Your task to perform on an android device: Go to ESPN.com Image 0: 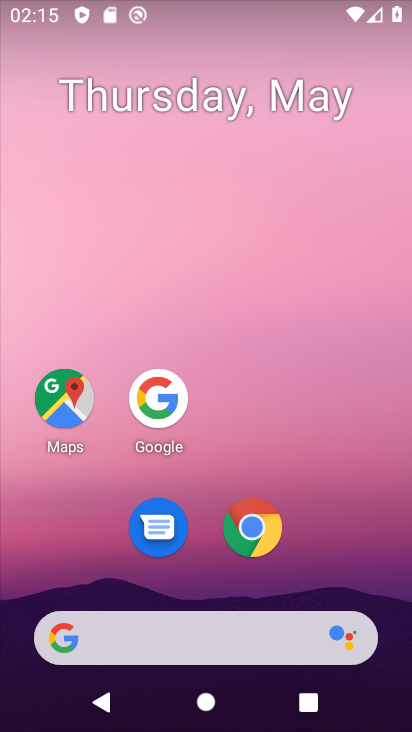
Step 0: drag from (211, 595) to (246, 100)
Your task to perform on an android device: Go to ESPN.com Image 1: 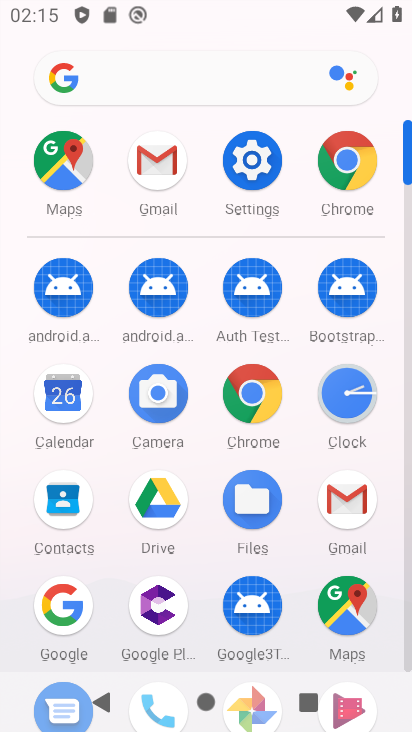
Step 1: click (198, 66)
Your task to perform on an android device: Go to ESPN.com Image 2: 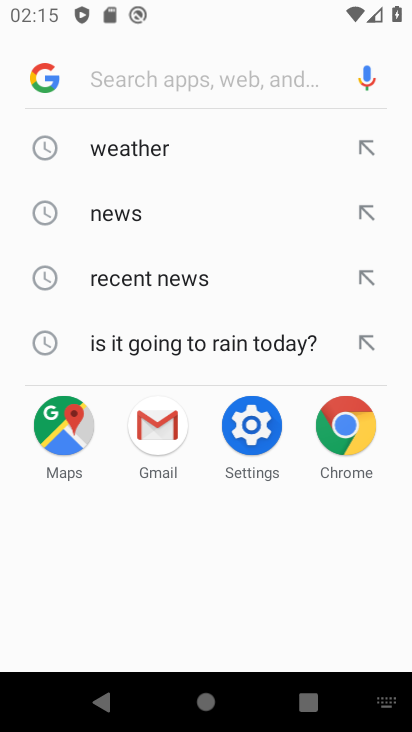
Step 2: type "ESPN.com"
Your task to perform on an android device: Go to ESPN.com Image 3: 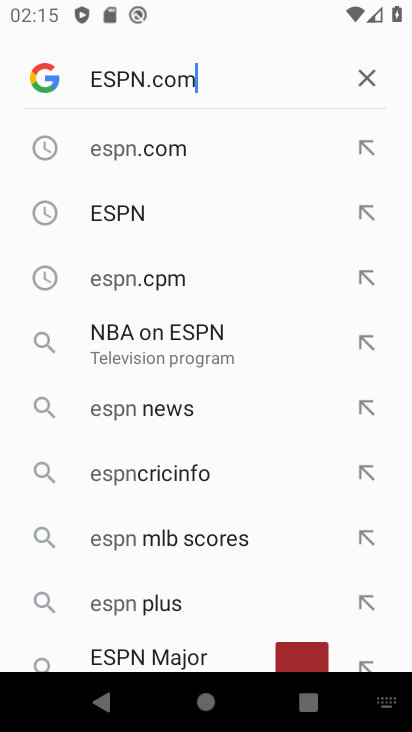
Step 3: type ""
Your task to perform on an android device: Go to ESPN.com Image 4: 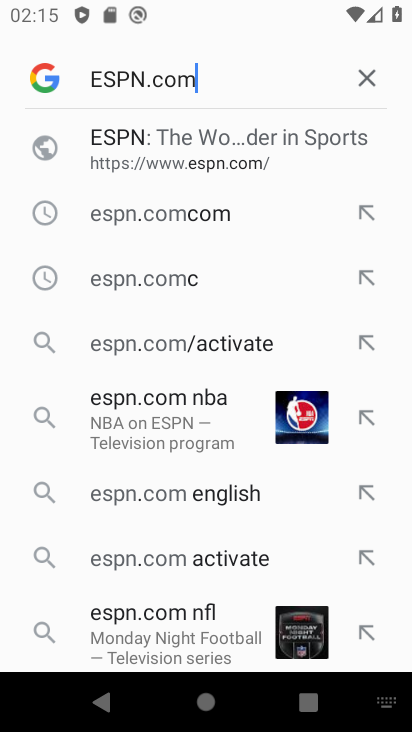
Step 4: click (161, 154)
Your task to perform on an android device: Go to ESPN.com Image 5: 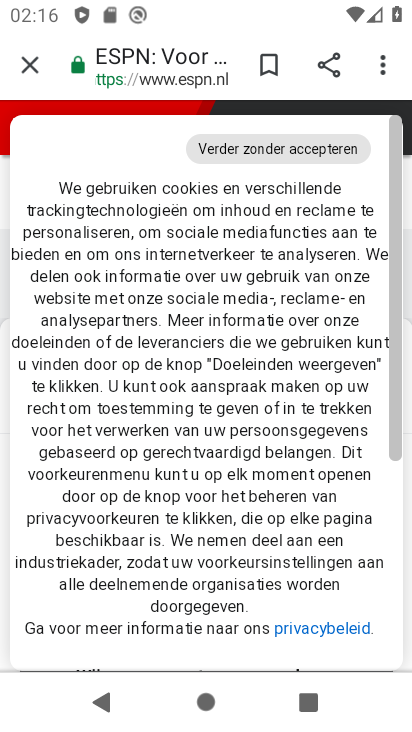
Step 5: task complete